Your task to perform on an android device: Go to Google maps Image 0: 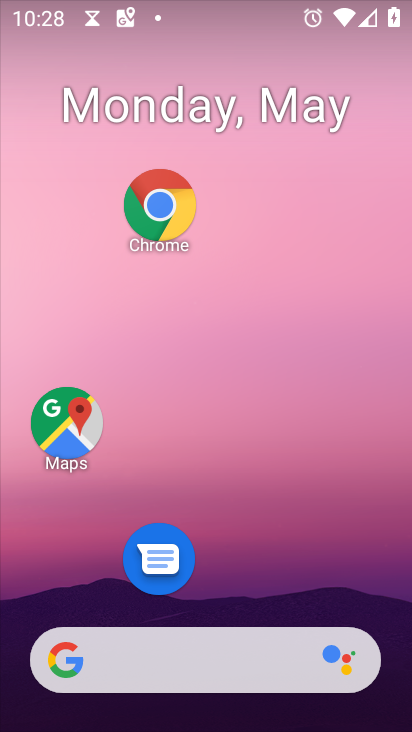
Step 0: drag from (260, 692) to (161, 128)
Your task to perform on an android device: Go to Google maps Image 1: 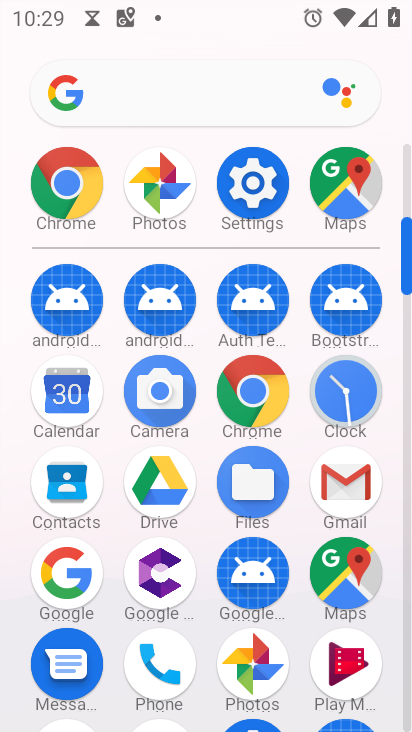
Step 1: click (361, 569)
Your task to perform on an android device: Go to Google maps Image 2: 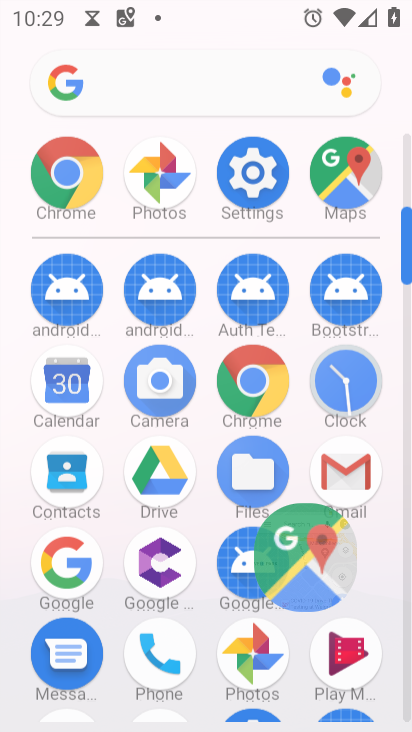
Step 2: click (356, 570)
Your task to perform on an android device: Go to Google maps Image 3: 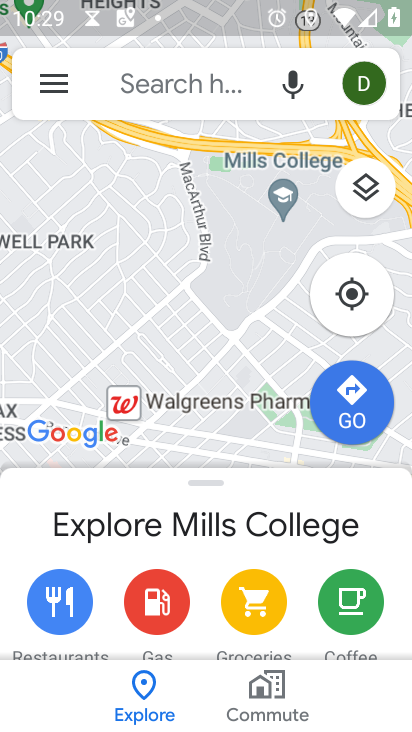
Step 3: task complete